Your task to perform on an android device: Open calendar and show me the second week of next month Image 0: 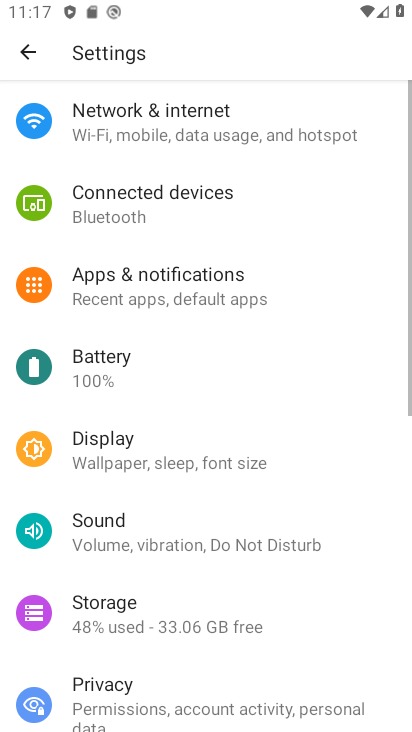
Step 0: press home button
Your task to perform on an android device: Open calendar and show me the second week of next month Image 1: 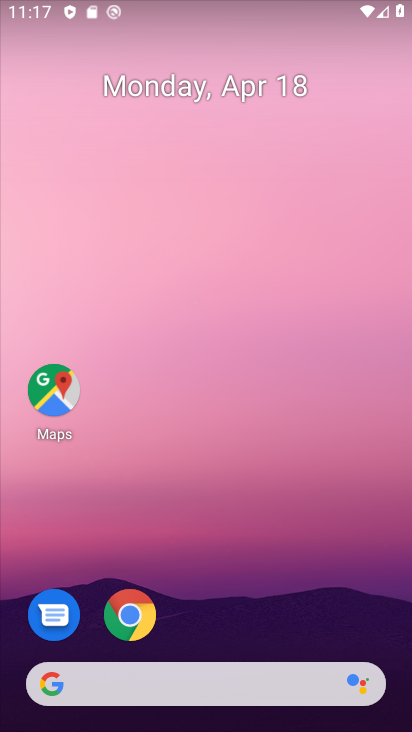
Step 1: drag from (236, 635) to (225, 235)
Your task to perform on an android device: Open calendar and show me the second week of next month Image 2: 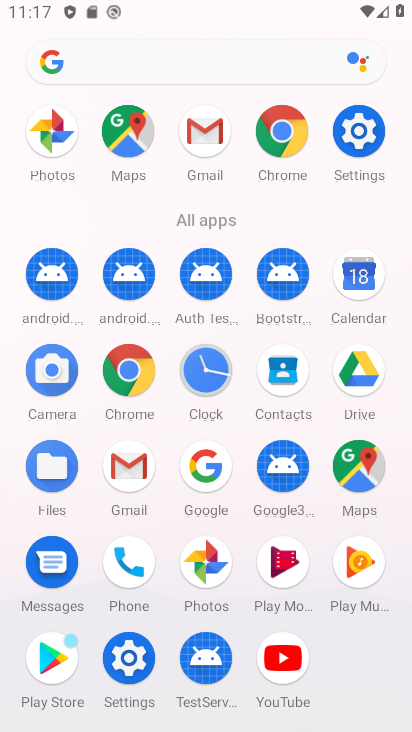
Step 2: click (362, 283)
Your task to perform on an android device: Open calendar and show me the second week of next month Image 3: 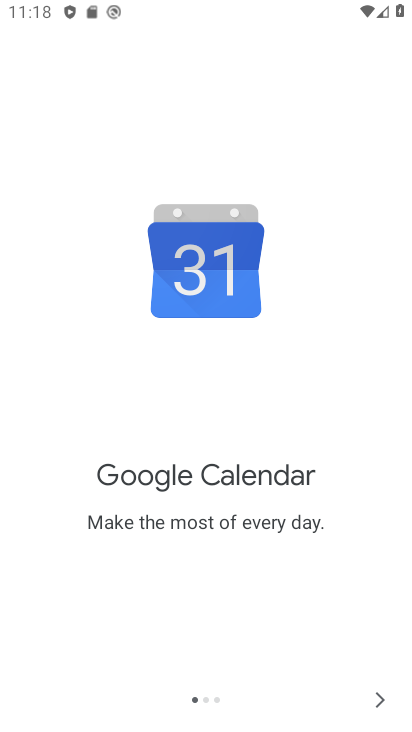
Step 3: click (380, 694)
Your task to perform on an android device: Open calendar and show me the second week of next month Image 4: 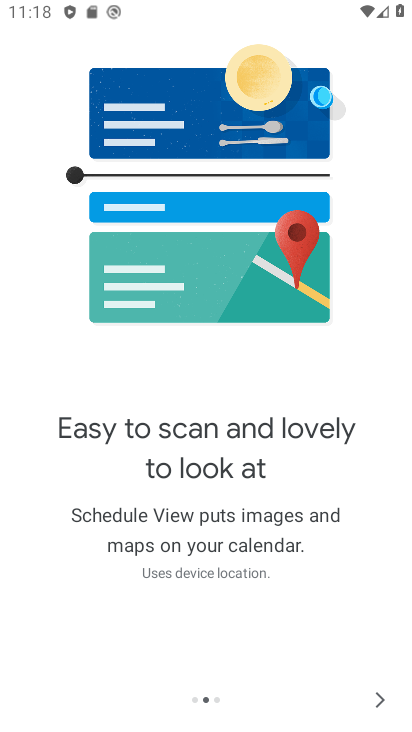
Step 4: click (380, 694)
Your task to perform on an android device: Open calendar and show me the second week of next month Image 5: 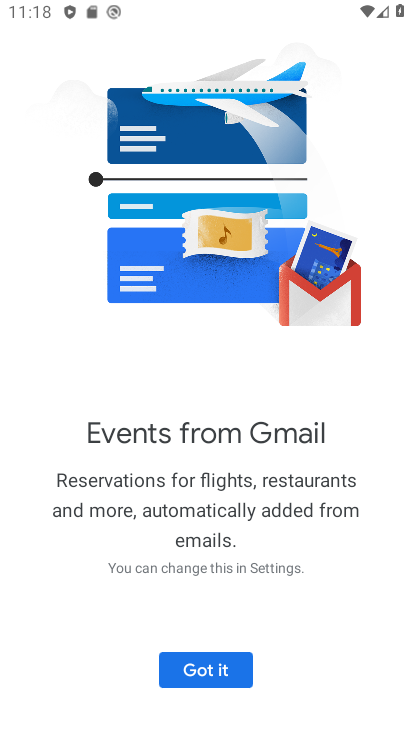
Step 5: click (181, 670)
Your task to perform on an android device: Open calendar and show me the second week of next month Image 6: 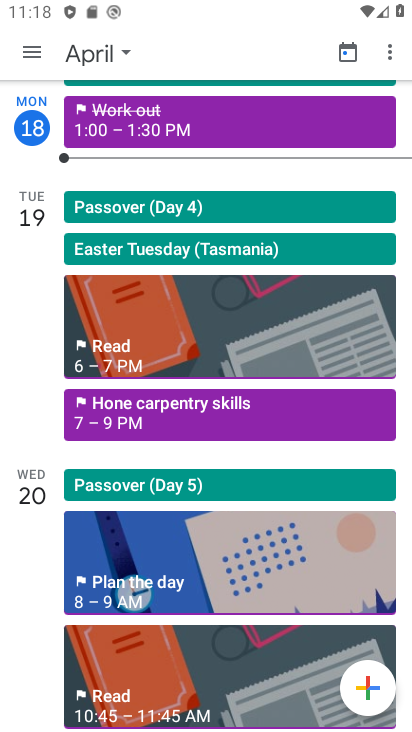
Step 6: click (102, 49)
Your task to perform on an android device: Open calendar and show me the second week of next month Image 7: 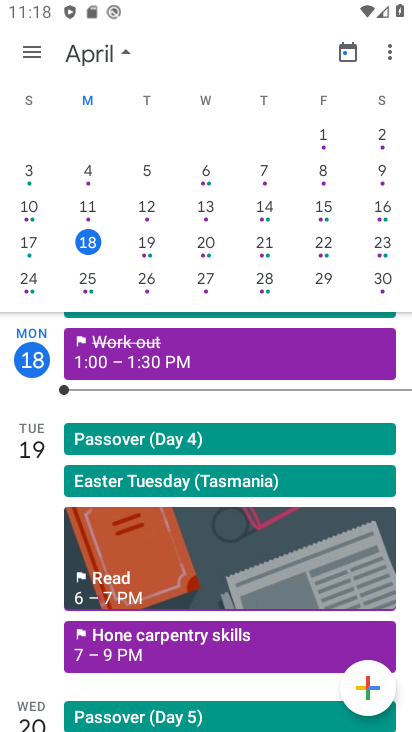
Step 7: drag from (357, 200) to (82, 168)
Your task to perform on an android device: Open calendar and show me the second week of next month Image 8: 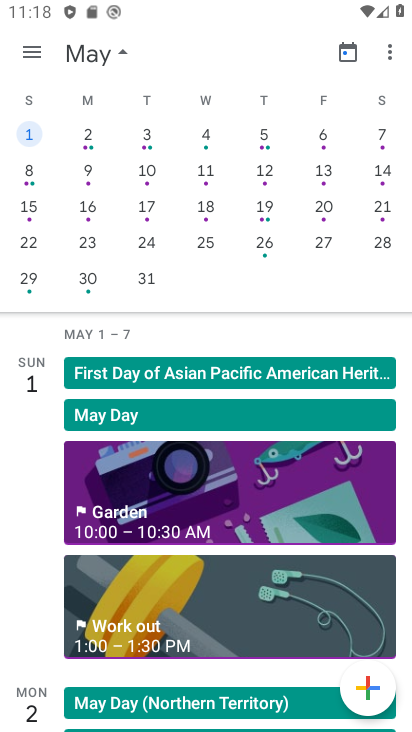
Step 8: click (89, 173)
Your task to perform on an android device: Open calendar and show me the second week of next month Image 9: 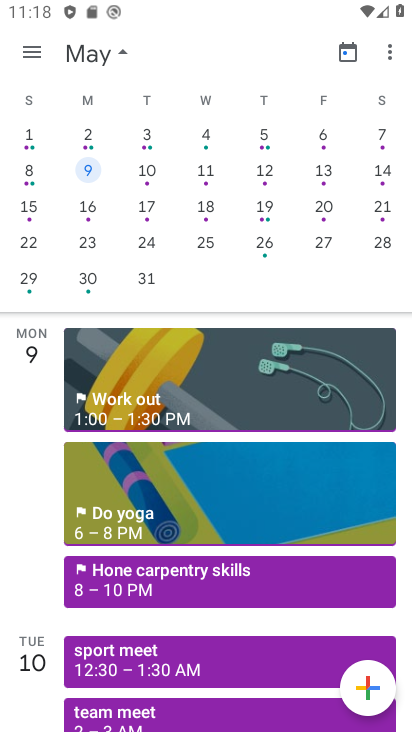
Step 9: task complete